Your task to perform on an android device: Go to Amazon Image 0: 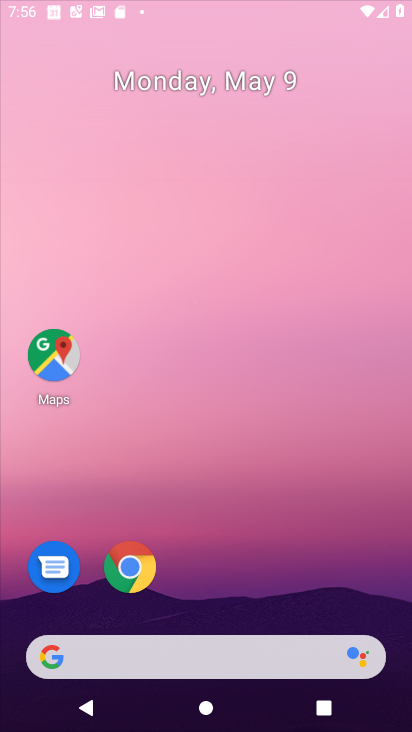
Step 0: drag from (195, 602) to (242, 222)
Your task to perform on an android device: Go to Amazon Image 1: 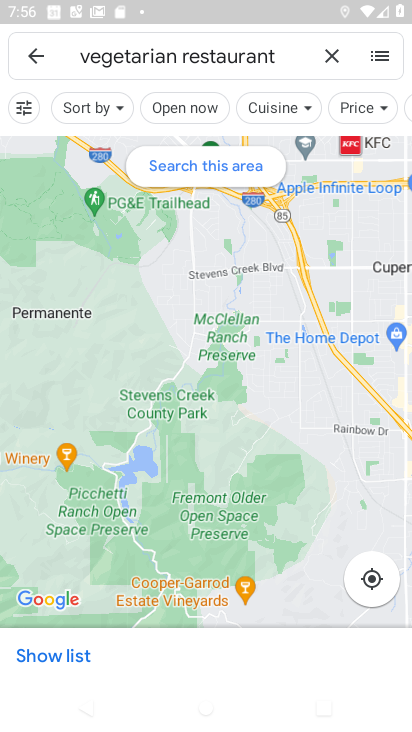
Step 1: press home button
Your task to perform on an android device: Go to Amazon Image 2: 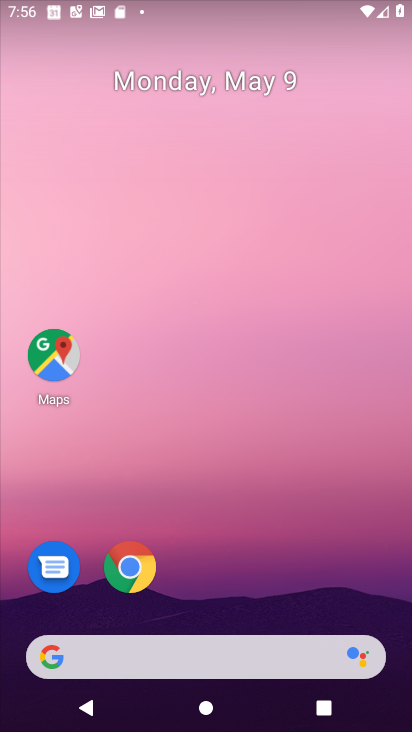
Step 2: drag from (241, 601) to (274, 330)
Your task to perform on an android device: Go to Amazon Image 3: 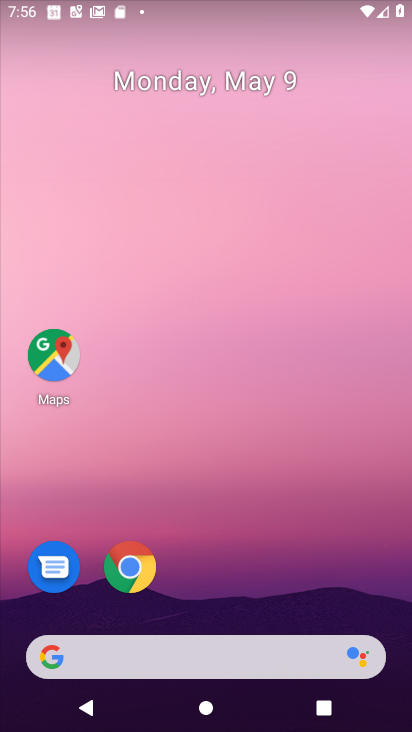
Step 3: drag from (206, 602) to (289, 196)
Your task to perform on an android device: Go to Amazon Image 4: 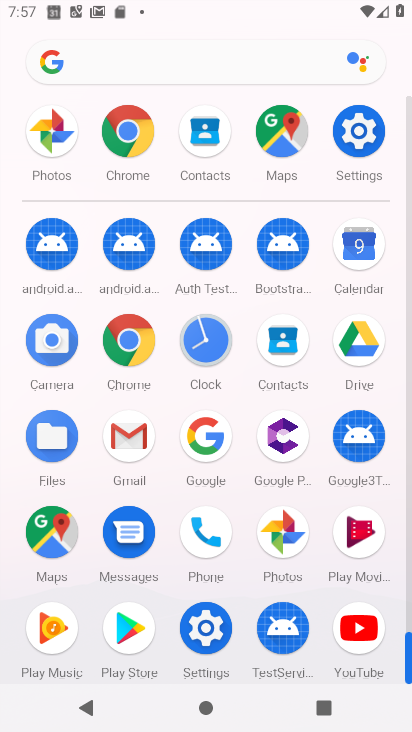
Step 4: click (121, 139)
Your task to perform on an android device: Go to Amazon Image 5: 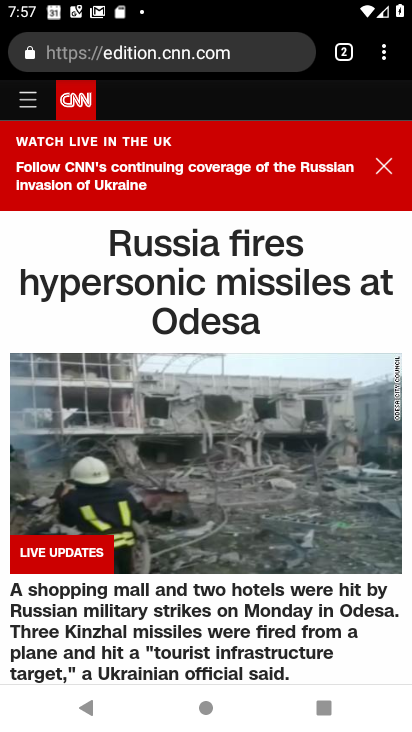
Step 5: drag from (223, 604) to (311, 203)
Your task to perform on an android device: Go to Amazon Image 6: 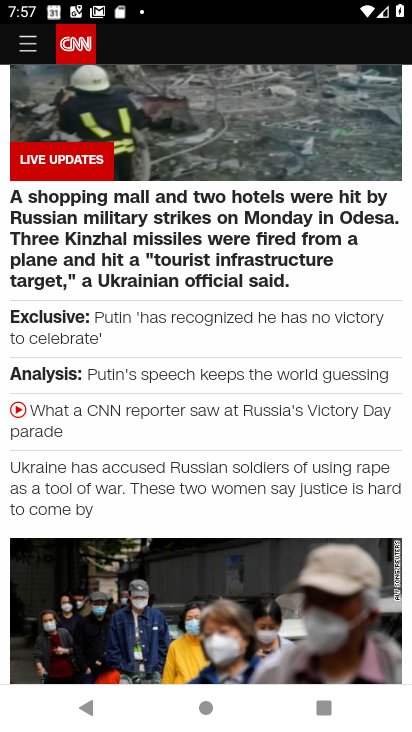
Step 6: drag from (272, 137) to (282, 678)
Your task to perform on an android device: Go to Amazon Image 7: 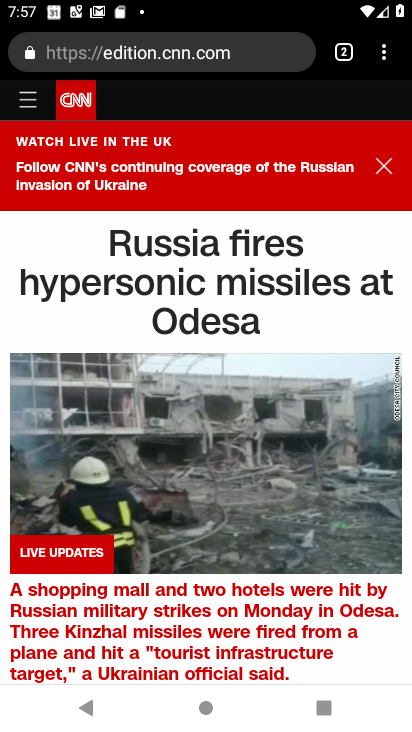
Step 7: click (173, 59)
Your task to perform on an android device: Go to Amazon Image 8: 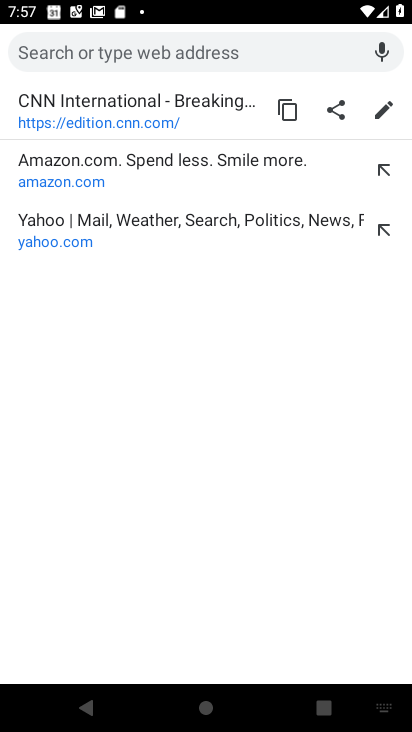
Step 8: type "amazon"
Your task to perform on an android device: Go to Amazon Image 9: 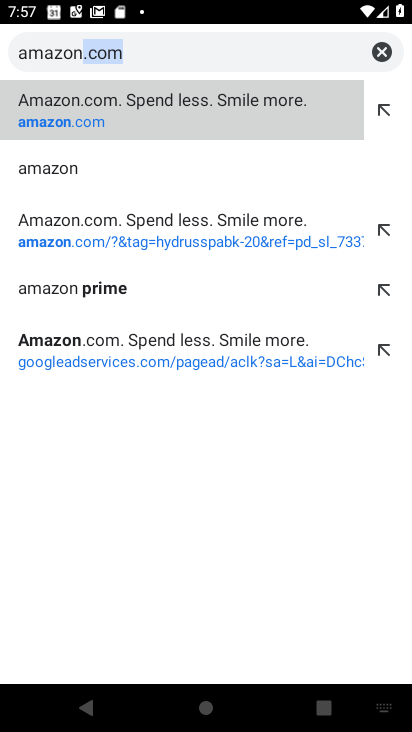
Step 9: click (45, 110)
Your task to perform on an android device: Go to Amazon Image 10: 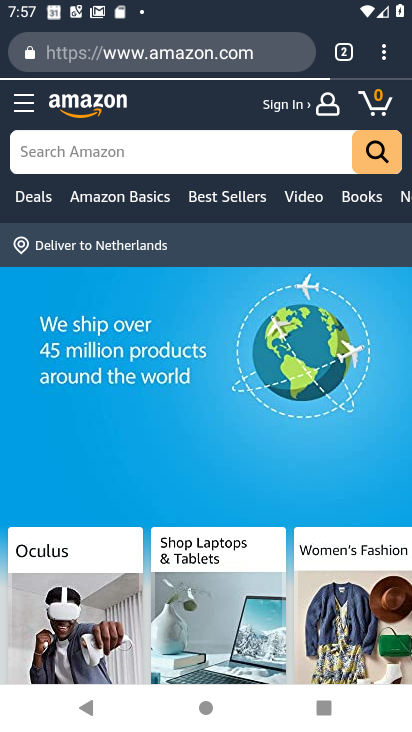
Step 10: task complete